Your task to perform on an android device: Open Chrome and go to settings Image 0: 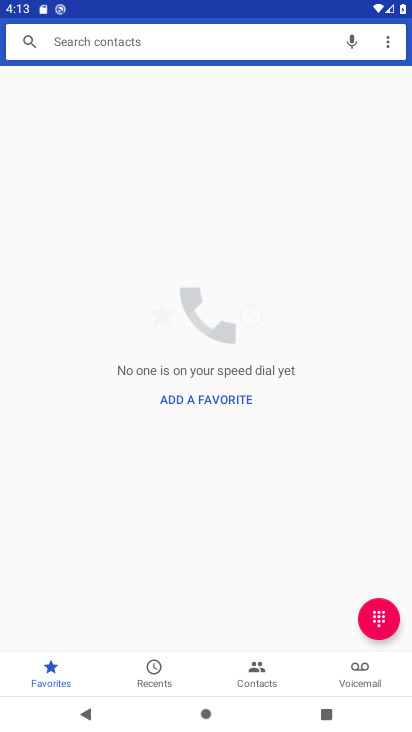
Step 0: press home button
Your task to perform on an android device: Open Chrome and go to settings Image 1: 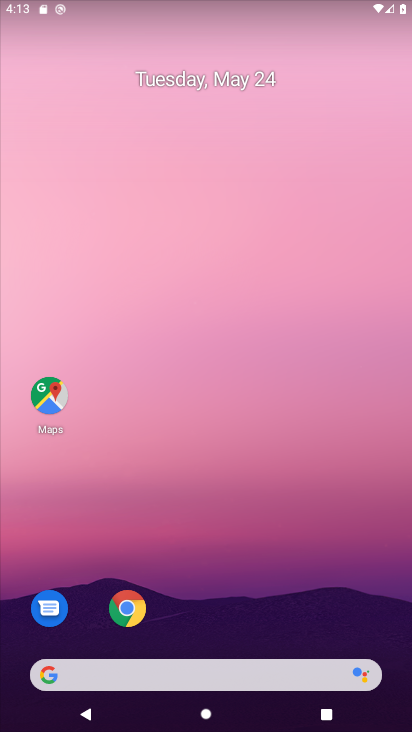
Step 1: click (136, 612)
Your task to perform on an android device: Open Chrome and go to settings Image 2: 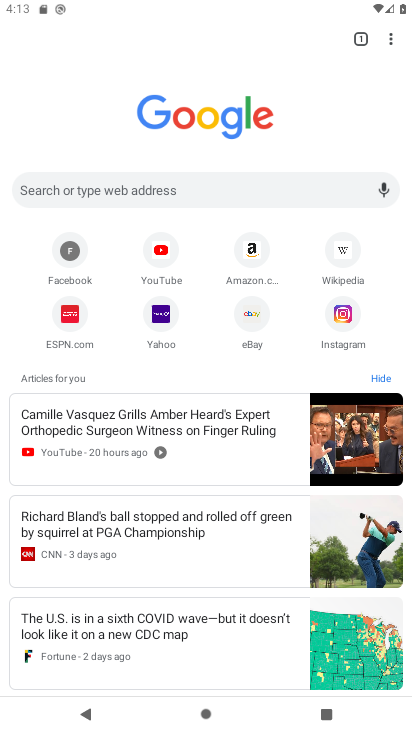
Step 2: click (387, 43)
Your task to perform on an android device: Open Chrome and go to settings Image 3: 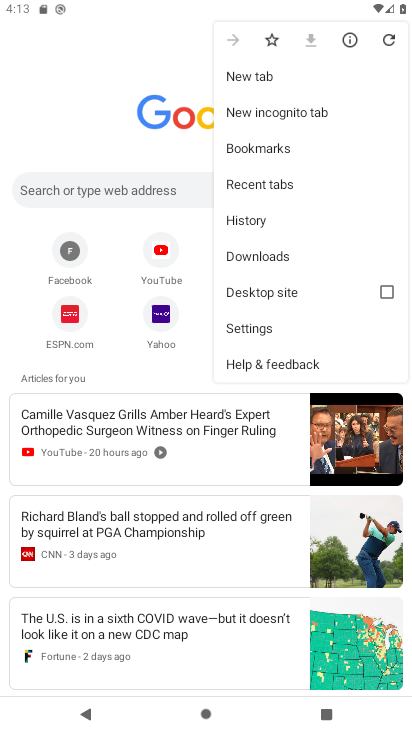
Step 3: click (260, 326)
Your task to perform on an android device: Open Chrome and go to settings Image 4: 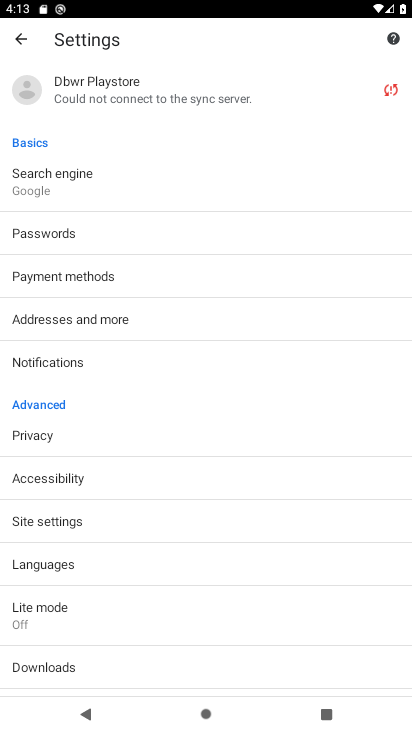
Step 4: task complete